Your task to perform on an android device: open chrome privacy settings Image 0: 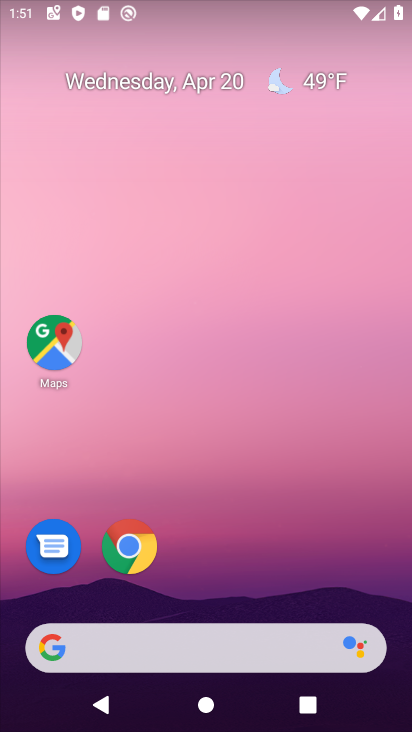
Step 0: click (137, 542)
Your task to perform on an android device: open chrome privacy settings Image 1: 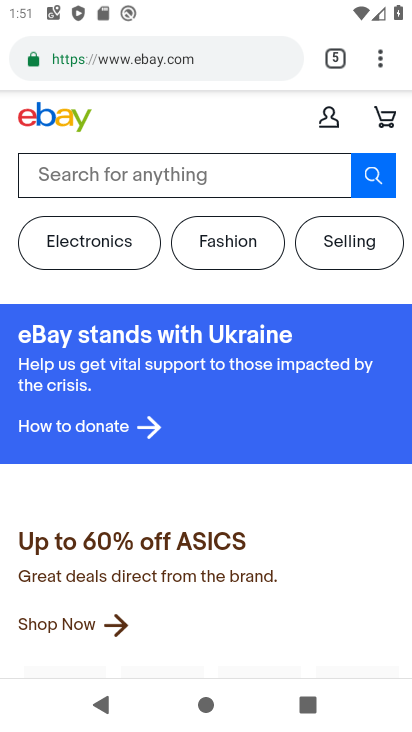
Step 1: click (376, 48)
Your task to perform on an android device: open chrome privacy settings Image 2: 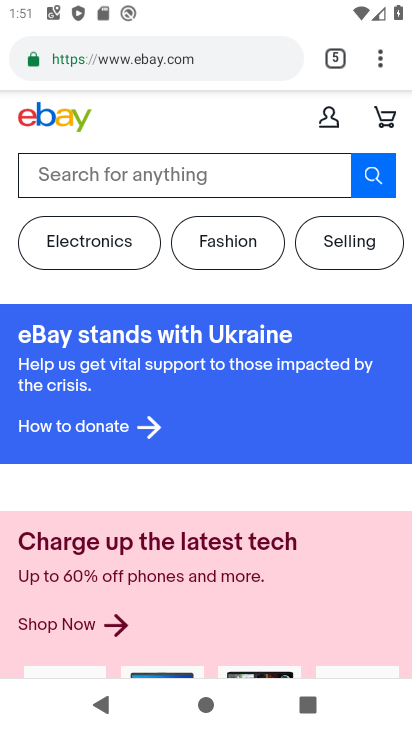
Step 2: drag from (381, 66) to (188, 568)
Your task to perform on an android device: open chrome privacy settings Image 3: 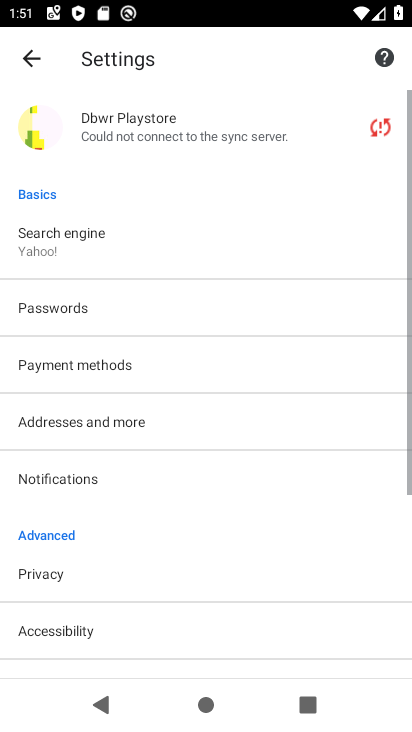
Step 3: drag from (197, 557) to (223, 318)
Your task to perform on an android device: open chrome privacy settings Image 4: 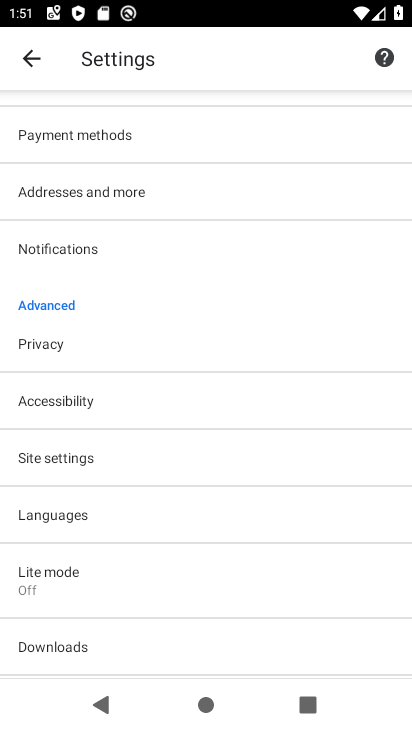
Step 4: click (55, 346)
Your task to perform on an android device: open chrome privacy settings Image 5: 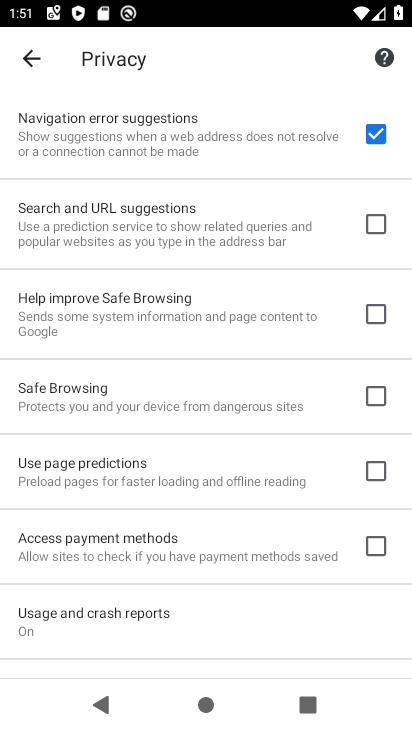
Step 5: task complete